Your task to perform on an android device: What's the weather? Image 0: 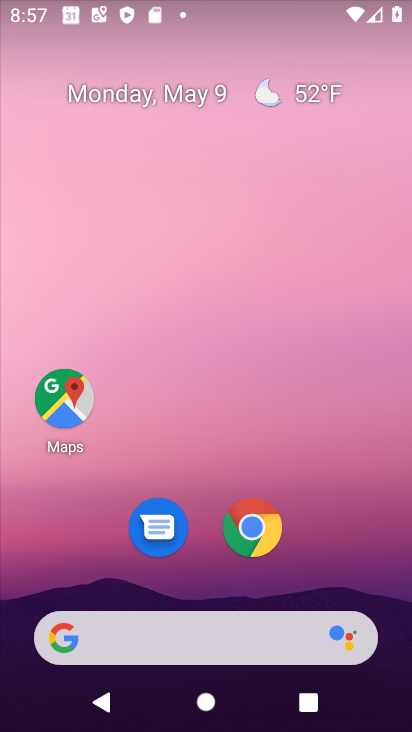
Step 0: drag from (208, 565) to (183, 77)
Your task to perform on an android device: What's the weather? Image 1: 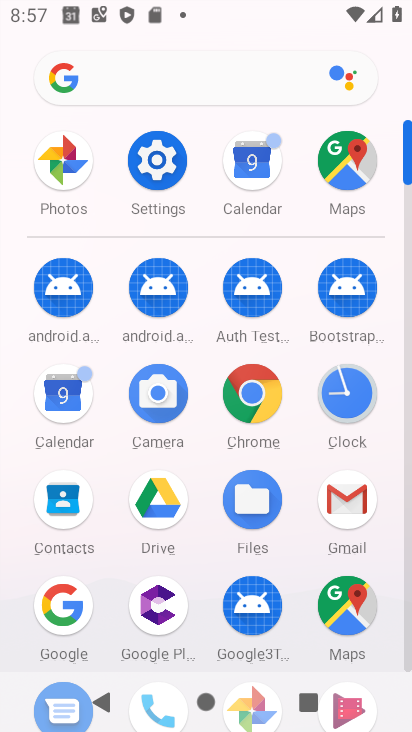
Step 1: click (57, 600)
Your task to perform on an android device: What's the weather? Image 2: 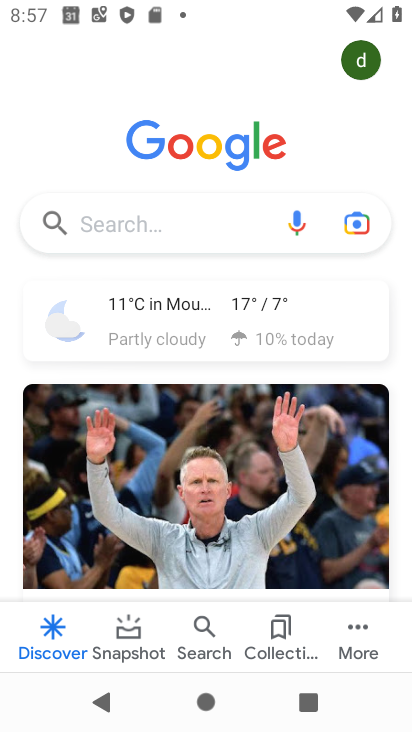
Step 2: click (166, 214)
Your task to perform on an android device: What's the weather? Image 3: 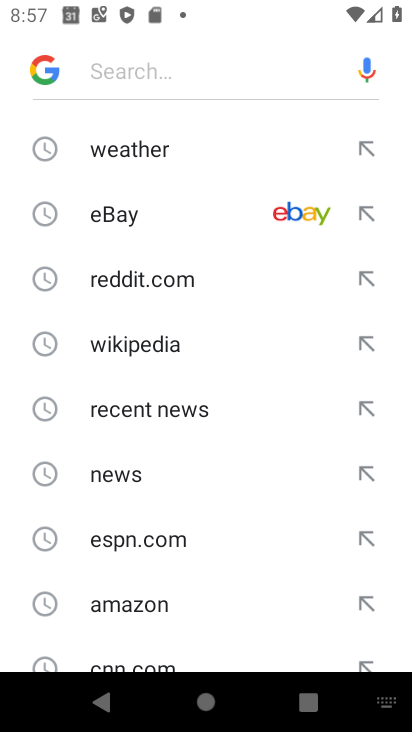
Step 3: type "whats the weather"
Your task to perform on an android device: What's the weather? Image 4: 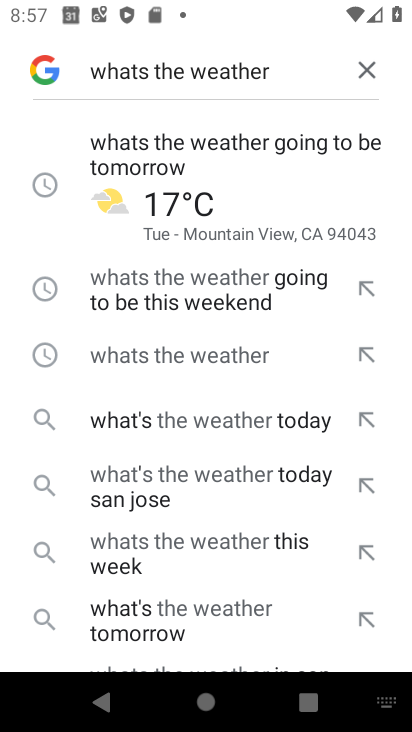
Step 4: drag from (168, 153) to (404, 349)
Your task to perform on an android device: What's the weather? Image 5: 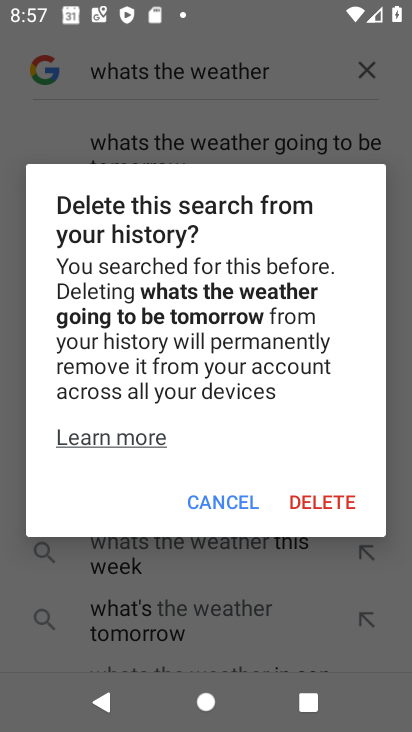
Step 5: click (214, 502)
Your task to perform on an android device: What's the weather? Image 6: 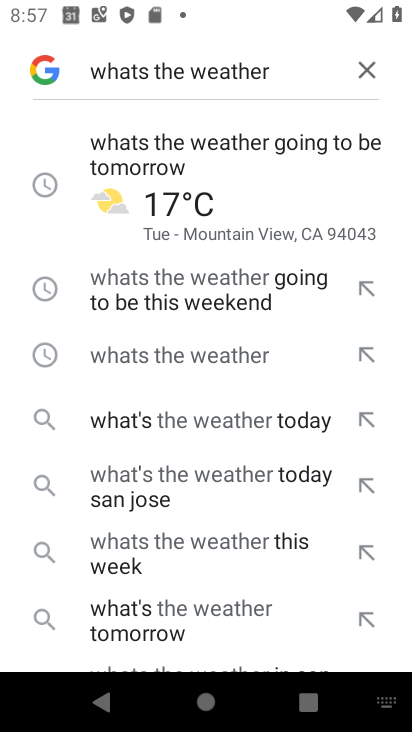
Step 6: click (188, 352)
Your task to perform on an android device: What's the weather? Image 7: 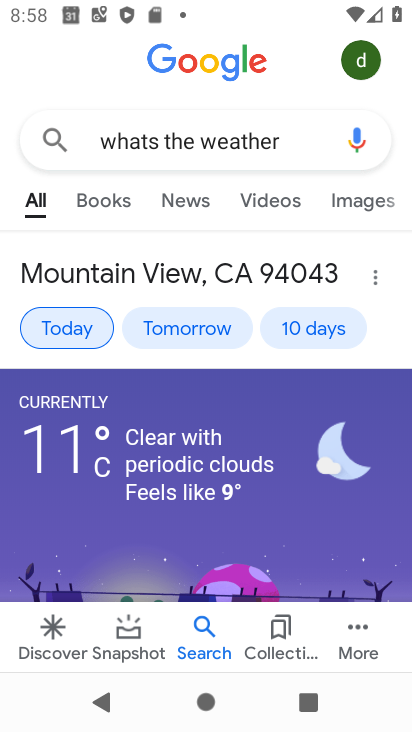
Step 7: task complete